Your task to perform on an android device: Open Google Image 0: 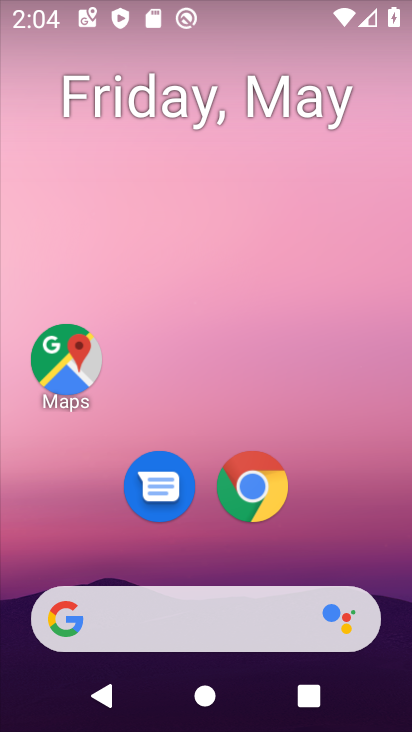
Step 0: drag from (392, 711) to (317, 267)
Your task to perform on an android device: Open Google Image 1: 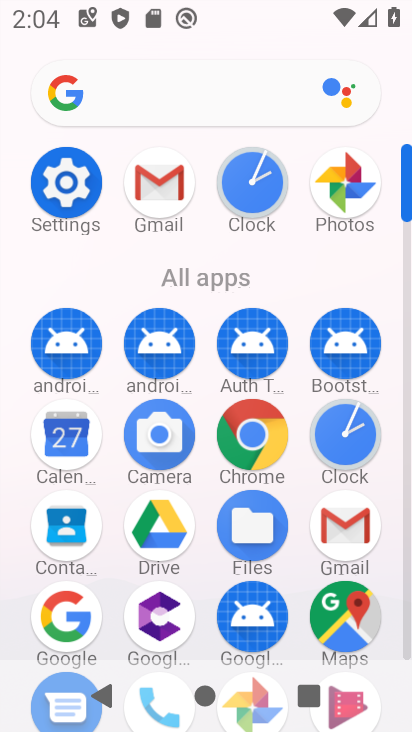
Step 1: click (88, 610)
Your task to perform on an android device: Open Google Image 2: 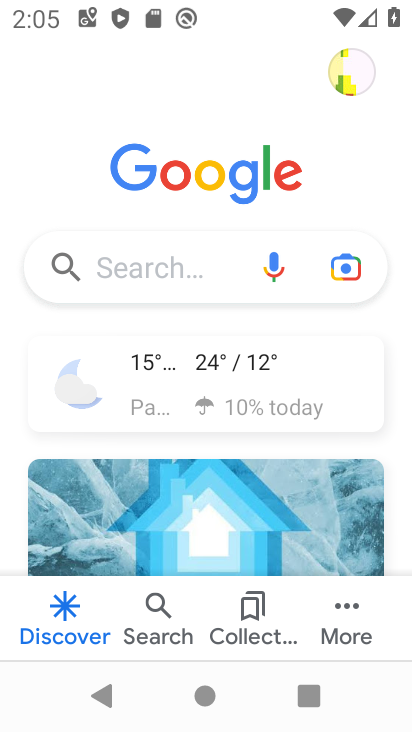
Step 2: task complete